Your task to perform on an android device: Open CNN.com Image 0: 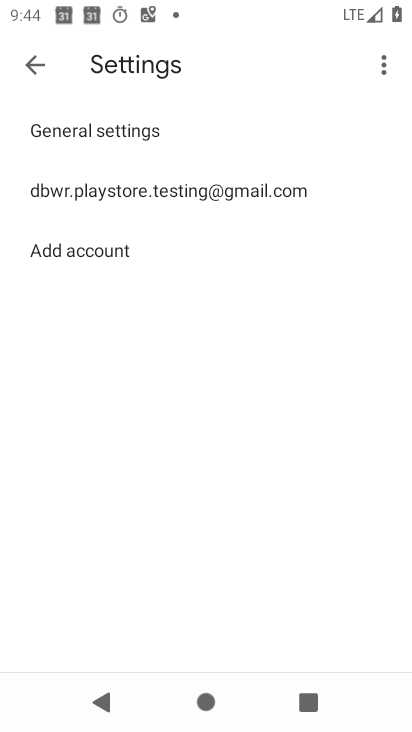
Step 0: press home button
Your task to perform on an android device: Open CNN.com Image 1: 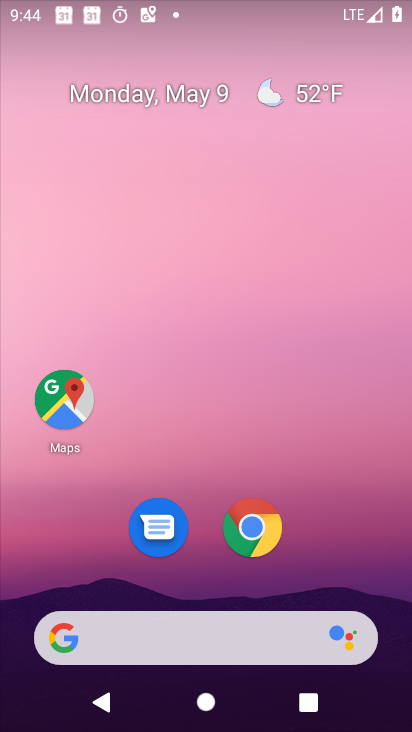
Step 1: drag from (374, 557) to (364, 85)
Your task to perform on an android device: Open CNN.com Image 2: 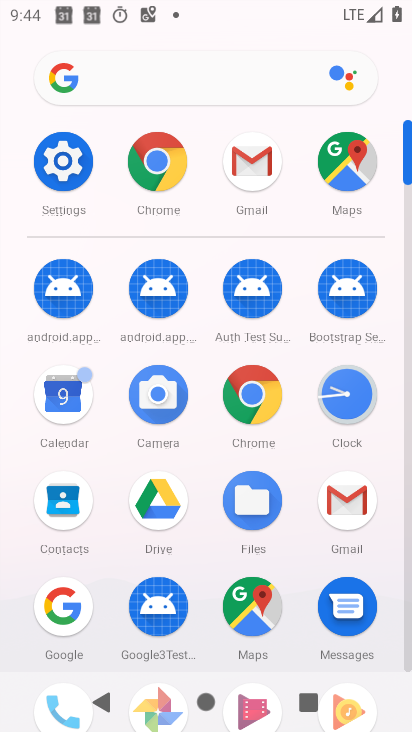
Step 2: click (247, 395)
Your task to perform on an android device: Open CNN.com Image 3: 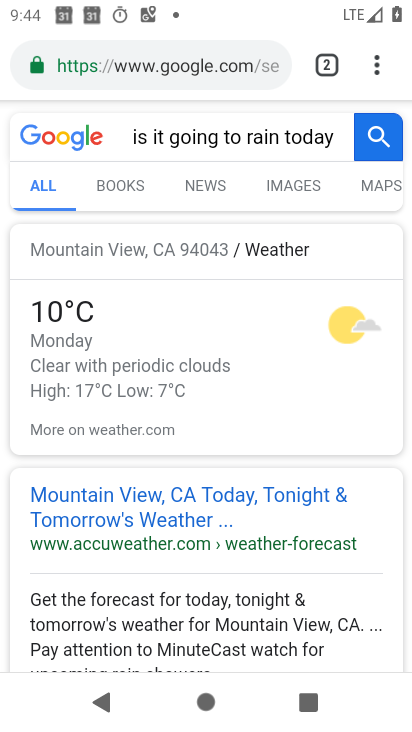
Step 3: click (180, 68)
Your task to perform on an android device: Open CNN.com Image 4: 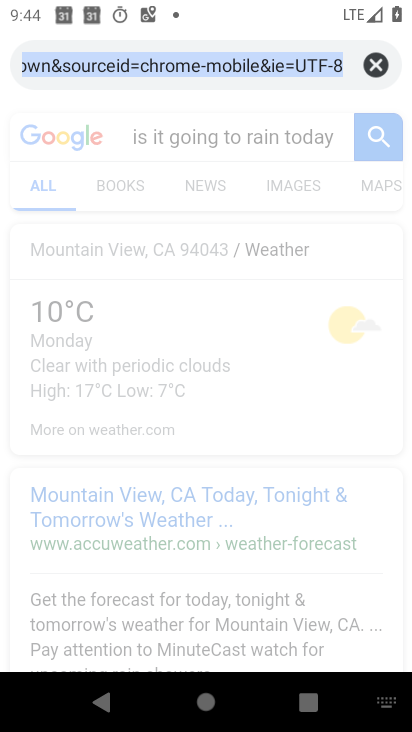
Step 4: click (376, 69)
Your task to perform on an android device: Open CNN.com Image 5: 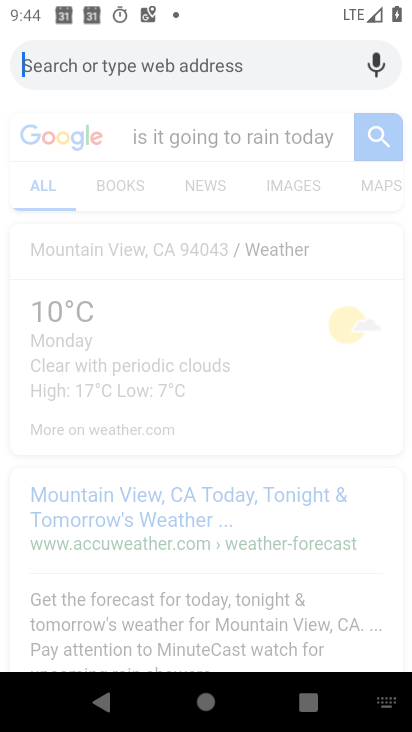
Step 5: type "cnn.com"
Your task to perform on an android device: Open CNN.com Image 6: 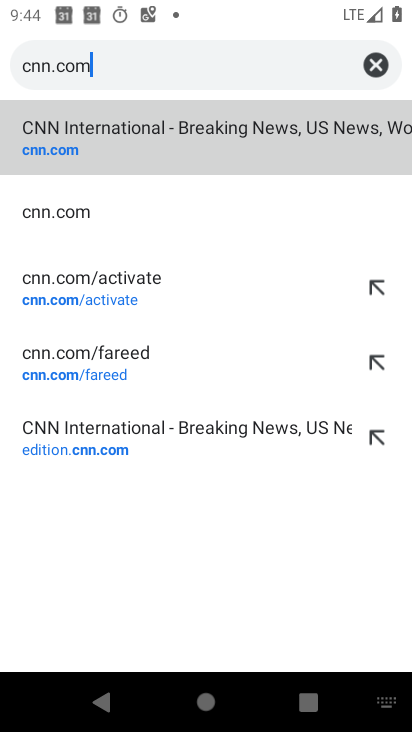
Step 6: click (193, 158)
Your task to perform on an android device: Open CNN.com Image 7: 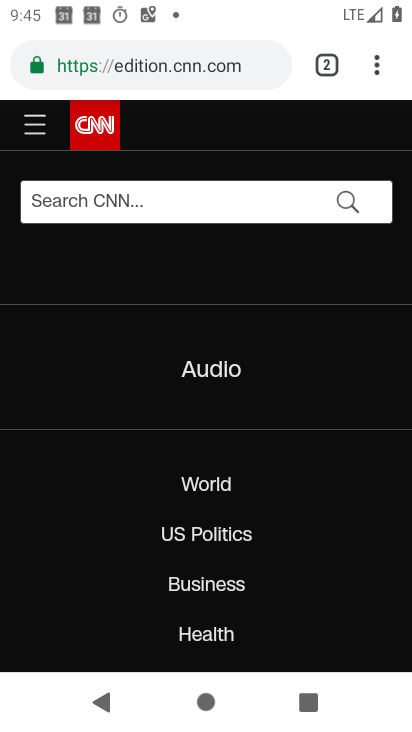
Step 7: task complete